Your task to perform on an android device: Go to display settings Image 0: 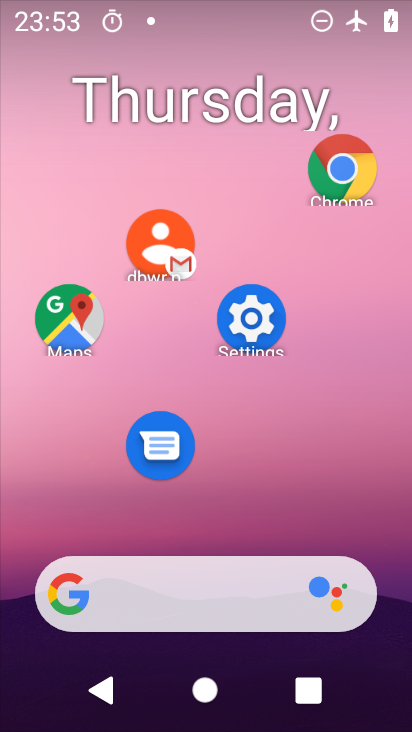
Step 0: click (252, 134)
Your task to perform on an android device: Go to display settings Image 1: 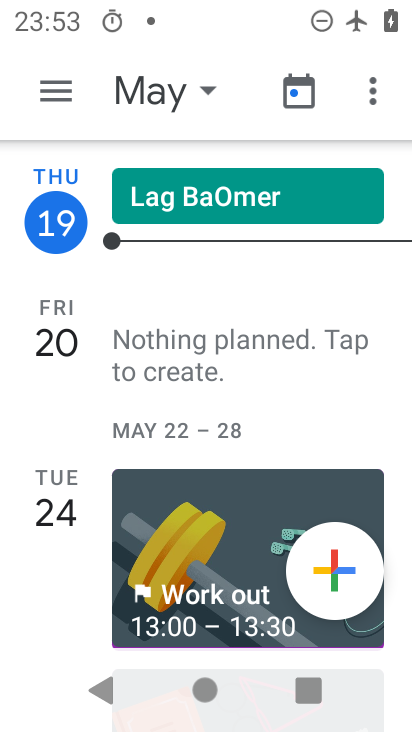
Step 1: drag from (269, 456) to (357, 112)
Your task to perform on an android device: Go to display settings Image 2: 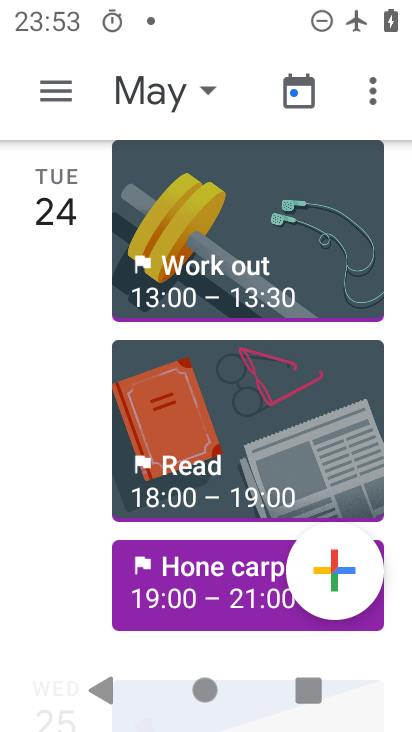
Step 2: drag from (237, 420) to (395, 707)
Your task to perform on an android device: Go to display settings Image 3: 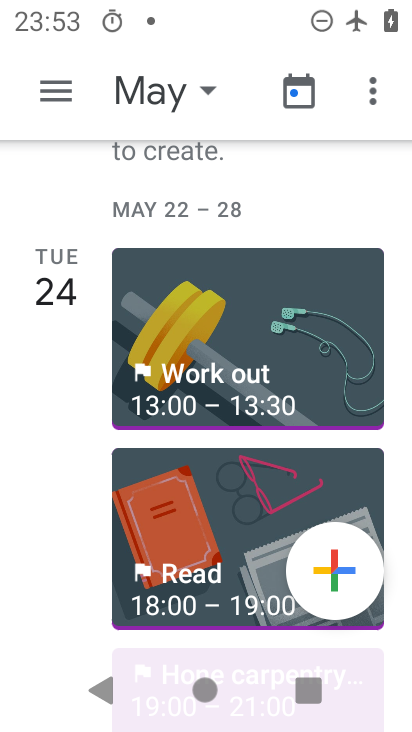
Step 3: press home button
Your task to perform on an android device: Go to display settings Image 4: 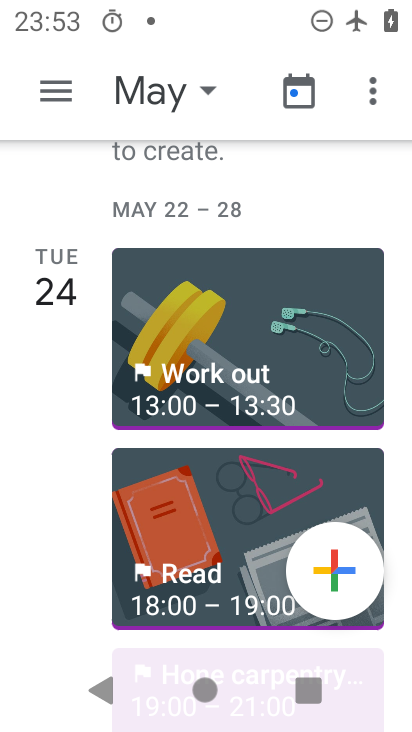
Step 4: click (408, 470)
Your task to perform on an android device: Go to display settings Image 5: 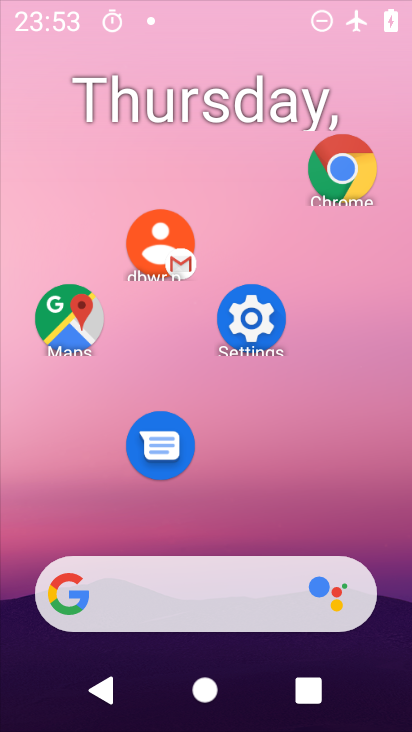
Step 5: drag from (179, 563) to (193, 132)
Your task to perform on an android device: Go to display settings Image 6: 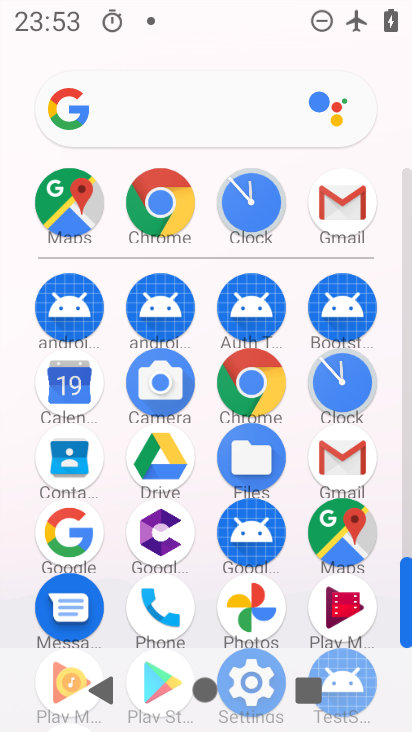
Step 6: drag from (294, 619) to (305, 313)
Your task to perform on an android device: Go to display settings Image 7: 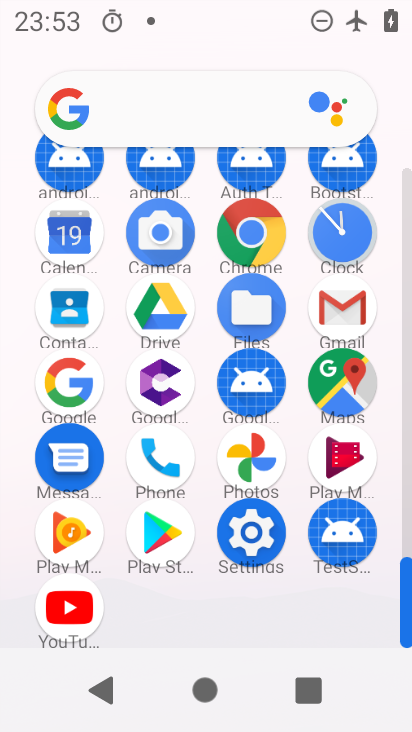
Step 7: click (275, 534)
Your task to perform on an android device: Go to display settings Image 8: 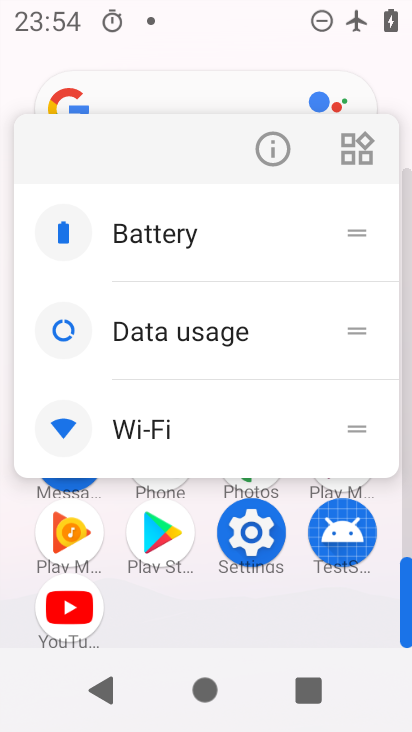
Step 8: click (270, 131)
Your task to perform on an android device: Go to display settings Image 9: 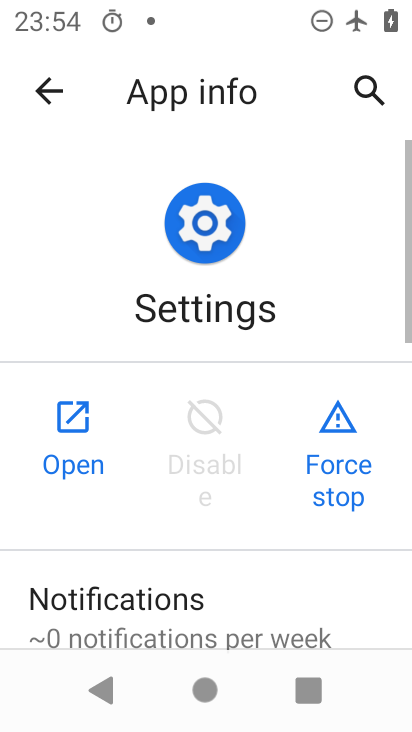
Step 9: click (72, 421)
Your task to perform on an android device: Go to display settings Image 10: 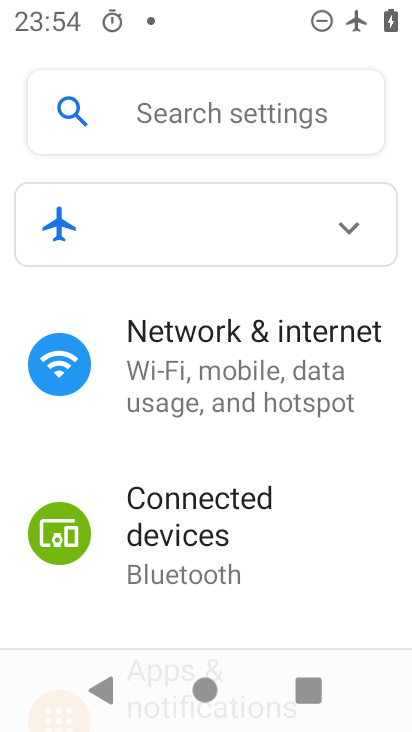
Step 10: drag from (233, 559) to (248, 119)
Your task to perform on an android device: Go to display settings Image 11: 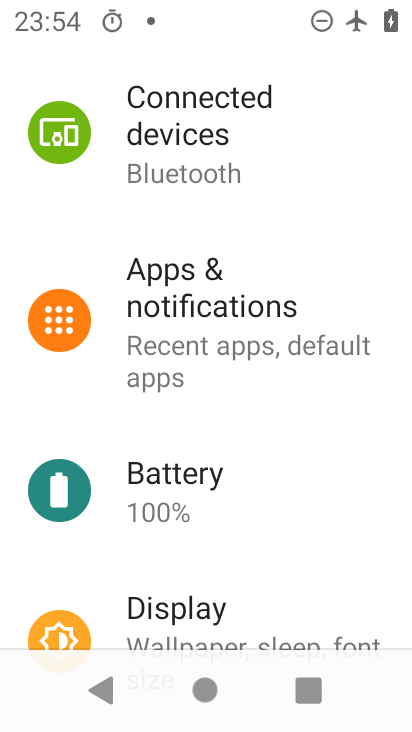
Step 11: click (190, 624)
Your task to perform on an android device: Go to display settings Image 12: 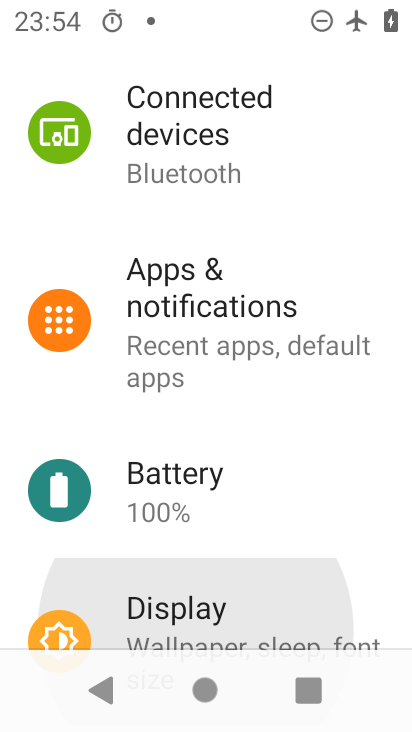
Step 12: click (190, 624)
Your task to perform on an android device: Go to display settings Image 13: 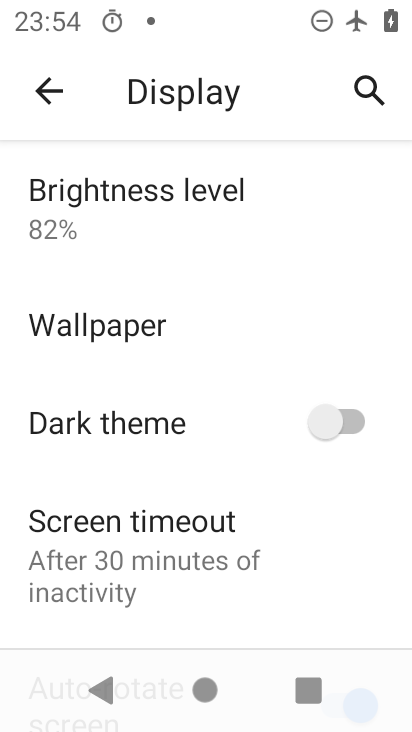
Step 13: task complete